Your task to perform on an android device: Search for sushi restaurants on Maps Image 0: 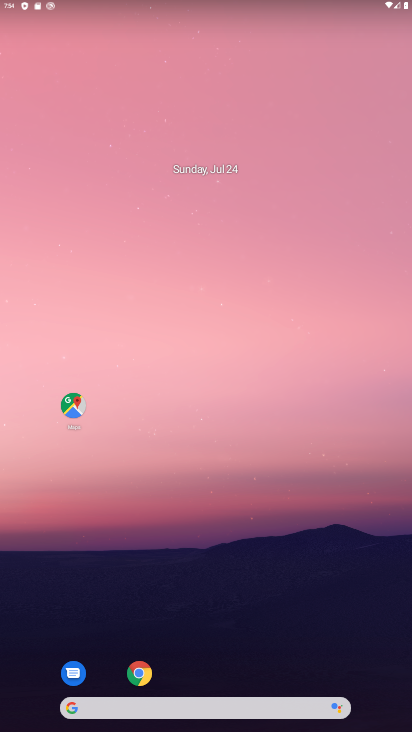
Step 0: click (70, 401)
Your task to perform on an android device: Search for sushi restaurants on Maps Image 1: 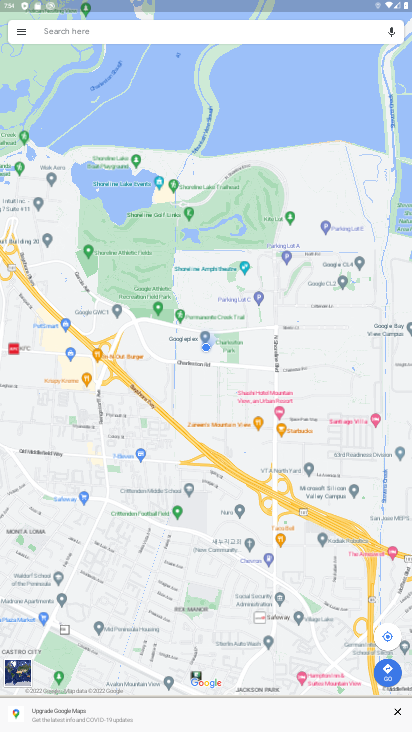
Step 1: click (84, 28)
Your task to perform on an android device: Search for sushi restaurants on Maps Image 2: 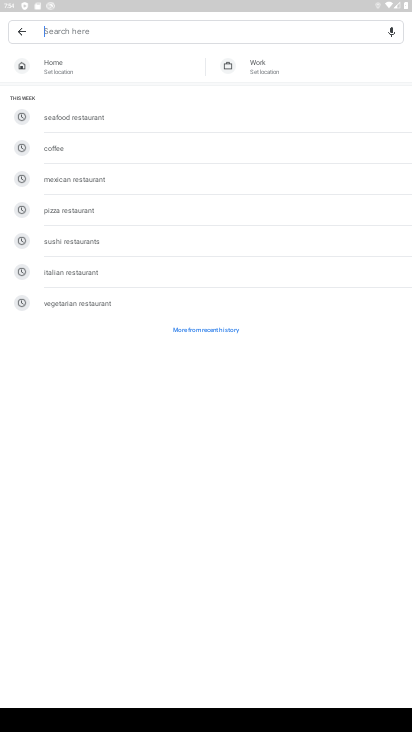
Step 2: type "sushi restaurants"
Your task to perform on an android device: Search for sushi restaurants on Maps Image 3: 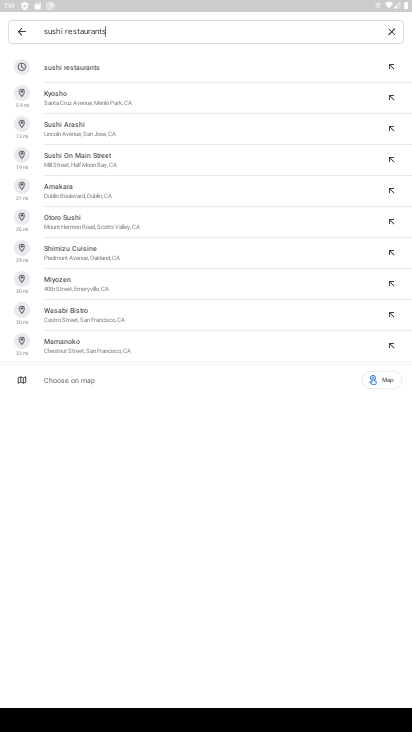
Step 3: click (77, 69)
Your task to perform on an android device: Search for sushi restaurants on Maps Image 4: 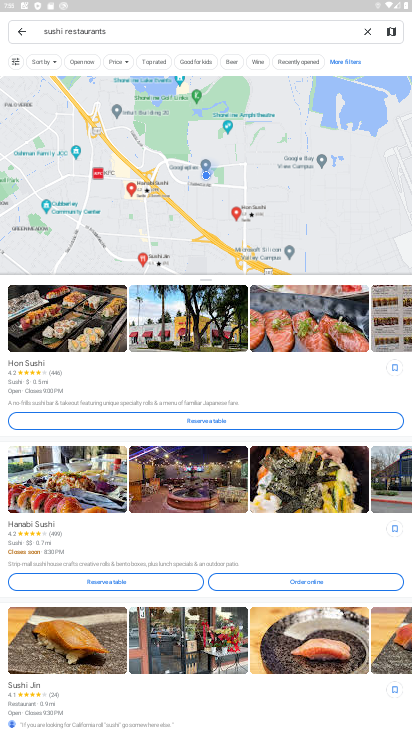
Step 4: task complete